Your task to perform on an android device: visit the assistant section in the google photos Image 0: 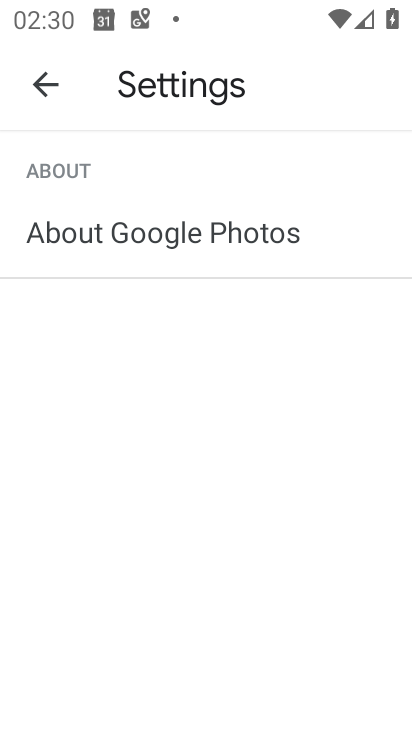
Step 0: press home button
Your task to perform on an android device: visit the assistant section in the google photos Image 1: 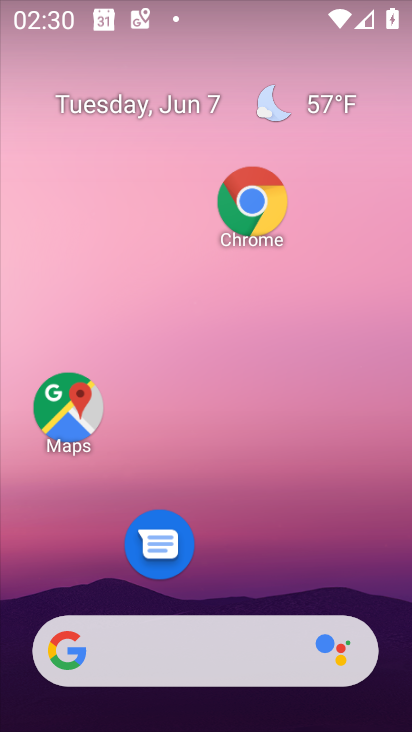
Step 1: drag from (291, 590) to (286, 472)
Your task to perform on an android device: visit the assistant section in the google photos Image 2: 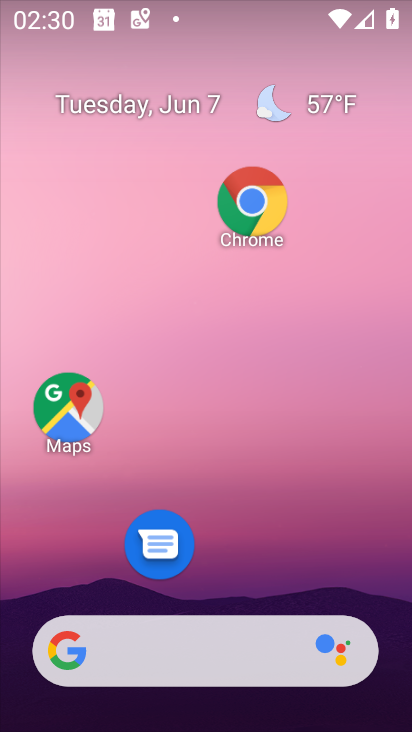
Step 2: drag from (215, 620) to (232, 192)
Your task to perform on an android device: visit the assistant section in the google photos Image 3: 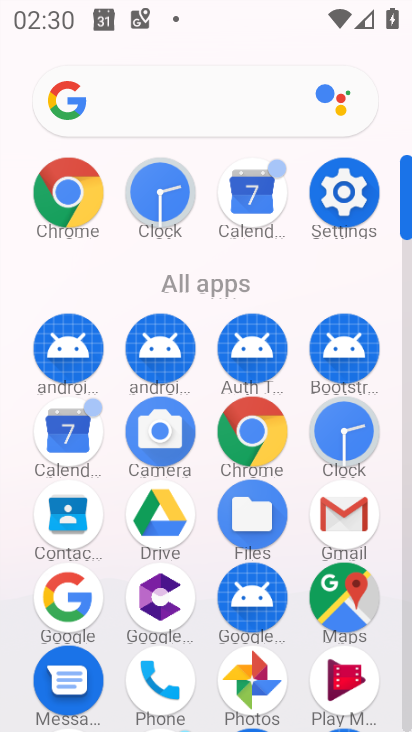
Step 3: click (235, 651)
Your task to perform on an android device: visit the assistant section in the google photos Image 4: 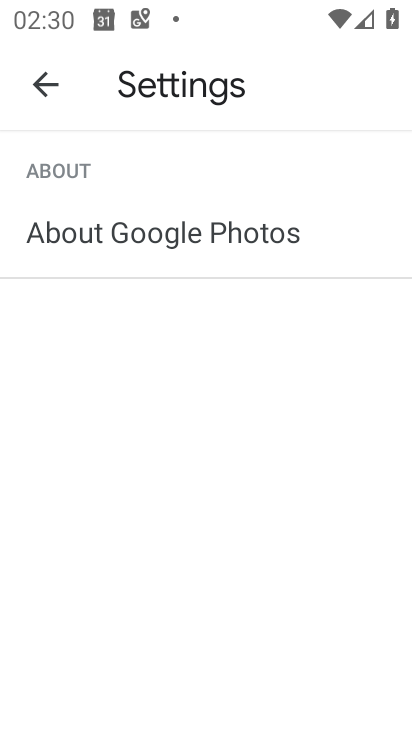
Step 4: click (46, 85)
Your task to perform on an android device: visit the assistant section in the google photos Image 5: 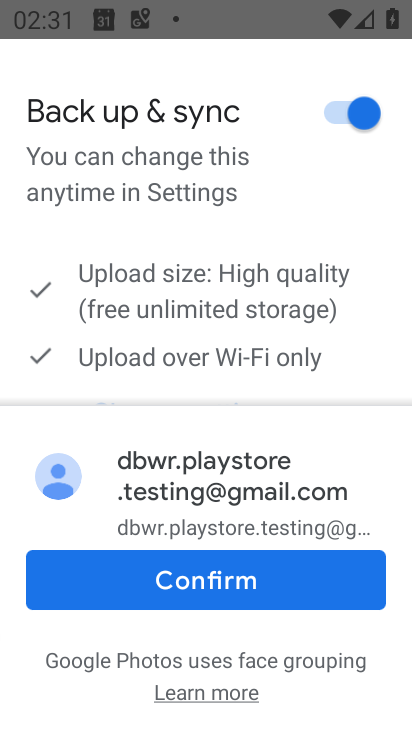
Step 5: click (198, 573)
Your task to perform on an android device: visit the assistant section in the google photos Image 6: 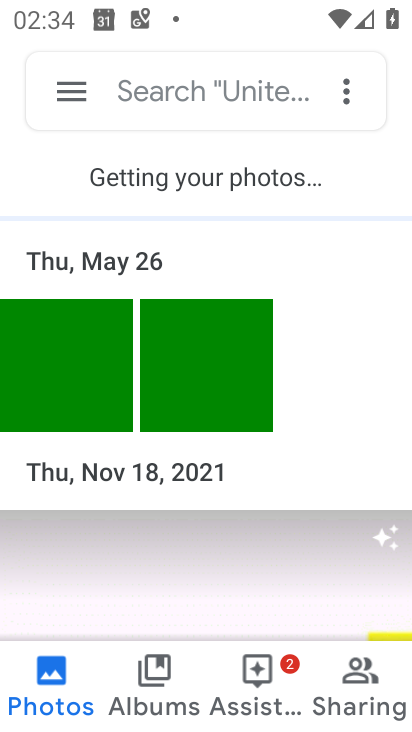
Step 6: click (256, 677)
Your task to perform on an android device: visit the assistant section in the google photos Image 7: 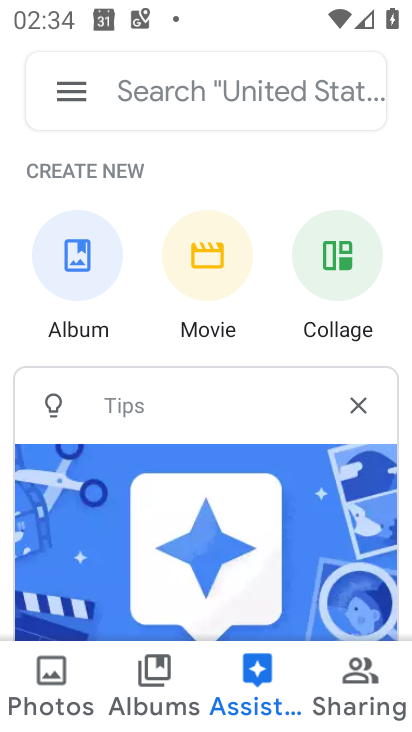
Step 7: task complete